Your task to perform on an android device: turn off location history Image 0: 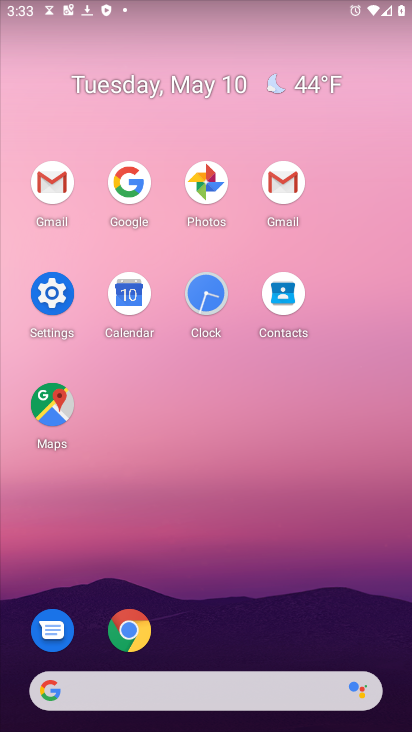
Step 0: click (57, 294)
Your task to perform on an android device: turn off location history Image 1: 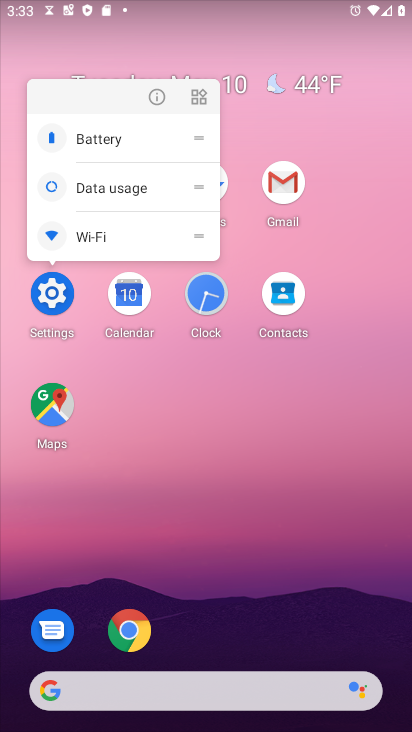
Step 1: click (56, 309)
Your task to perform on an android device: turn off location history Image 2: 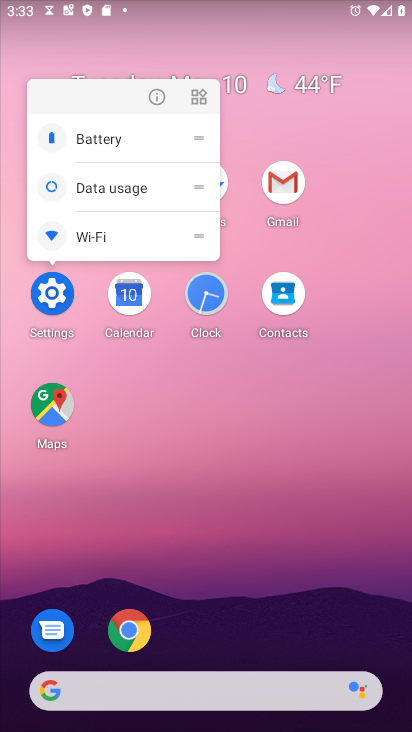
Step 2: click (55, 309)
Your task to perform on an android device: turn off location history Image 3: 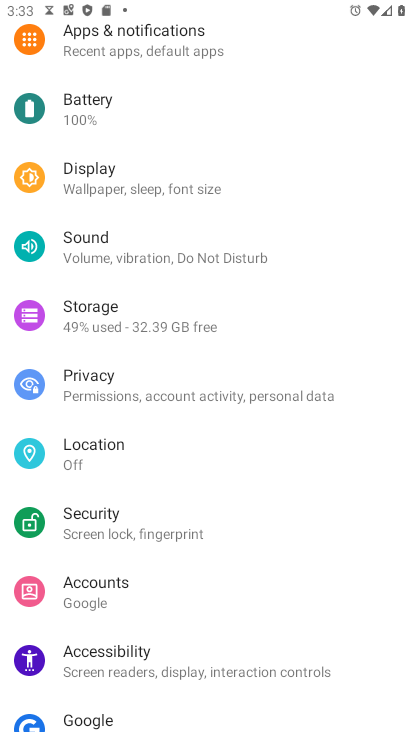
Step 3: click (204, 467)
Your task to perform on an android device: turn off location history Image 4: 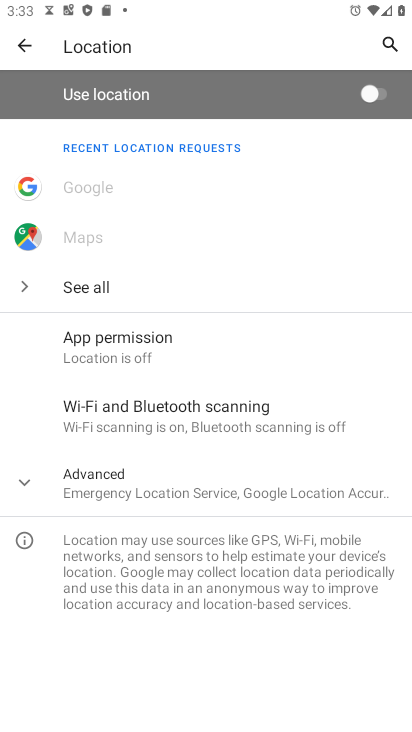
Step 4: click (213, 480)
Your task to perform on an android device: turn off location history Image 5: 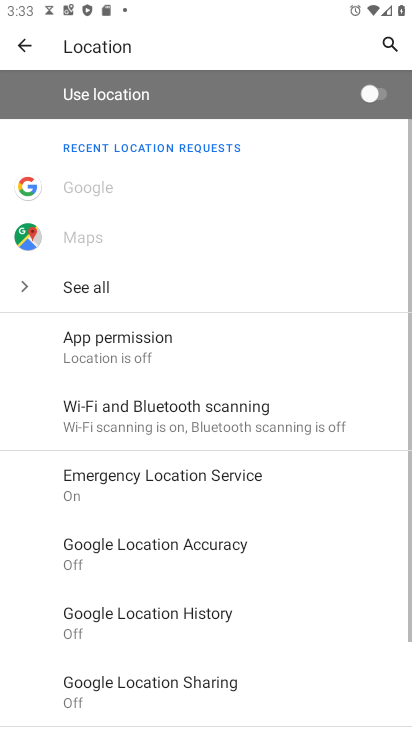
Step 5: click (254, 615)
Your task to perform on an android device: turn off location history Image 6: 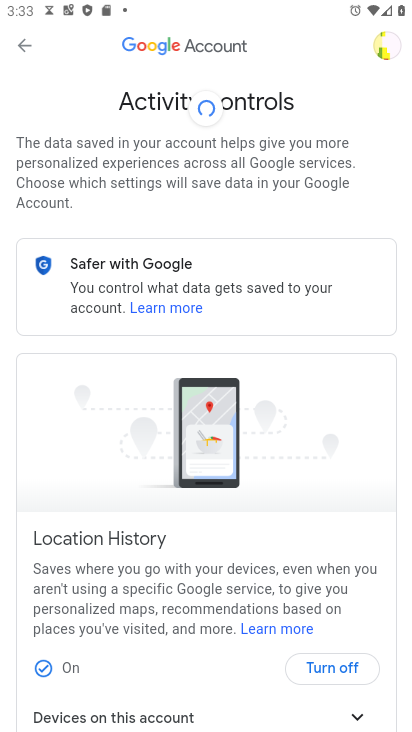
Step 6: task complete